Your task to perform on an android device: What is the news today? Image 0: 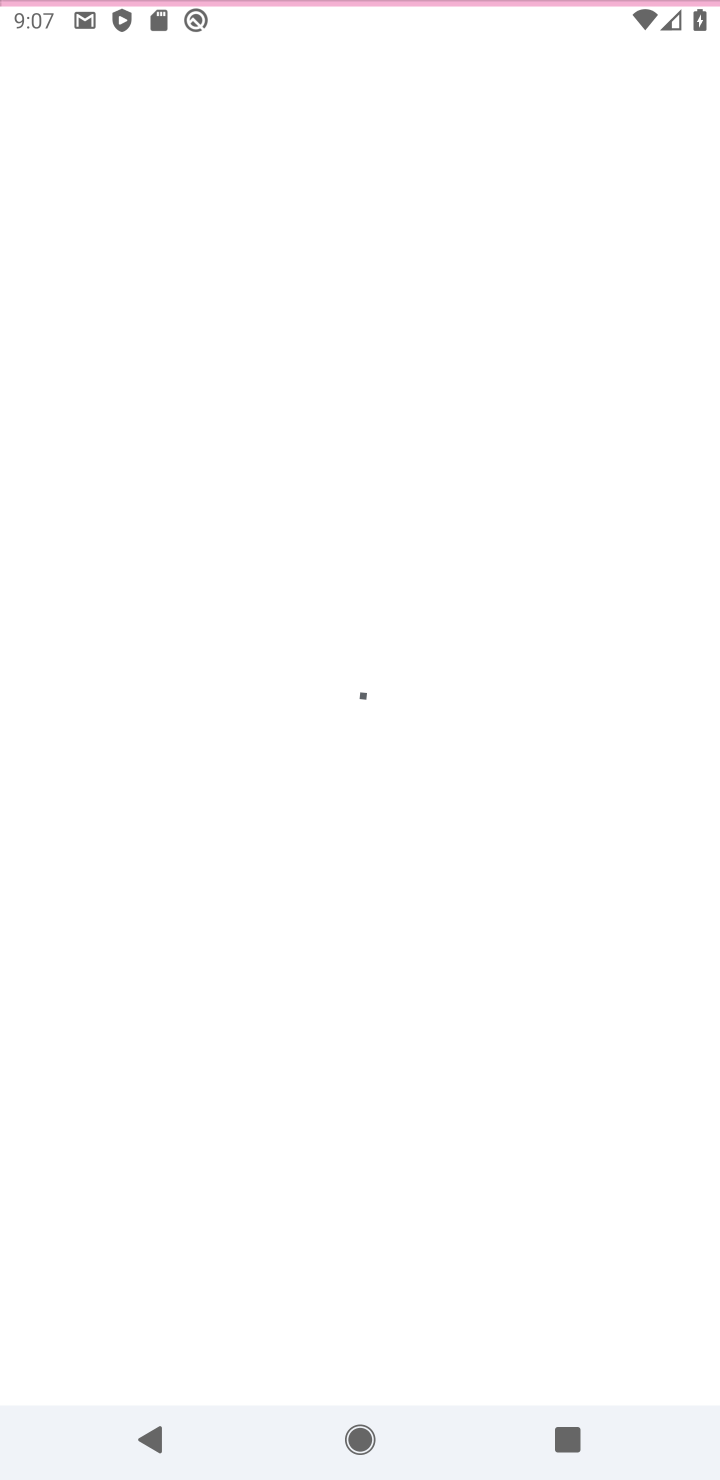
Step 0: press back button
Your task to perform on an android device: What is the news today? Image 1: 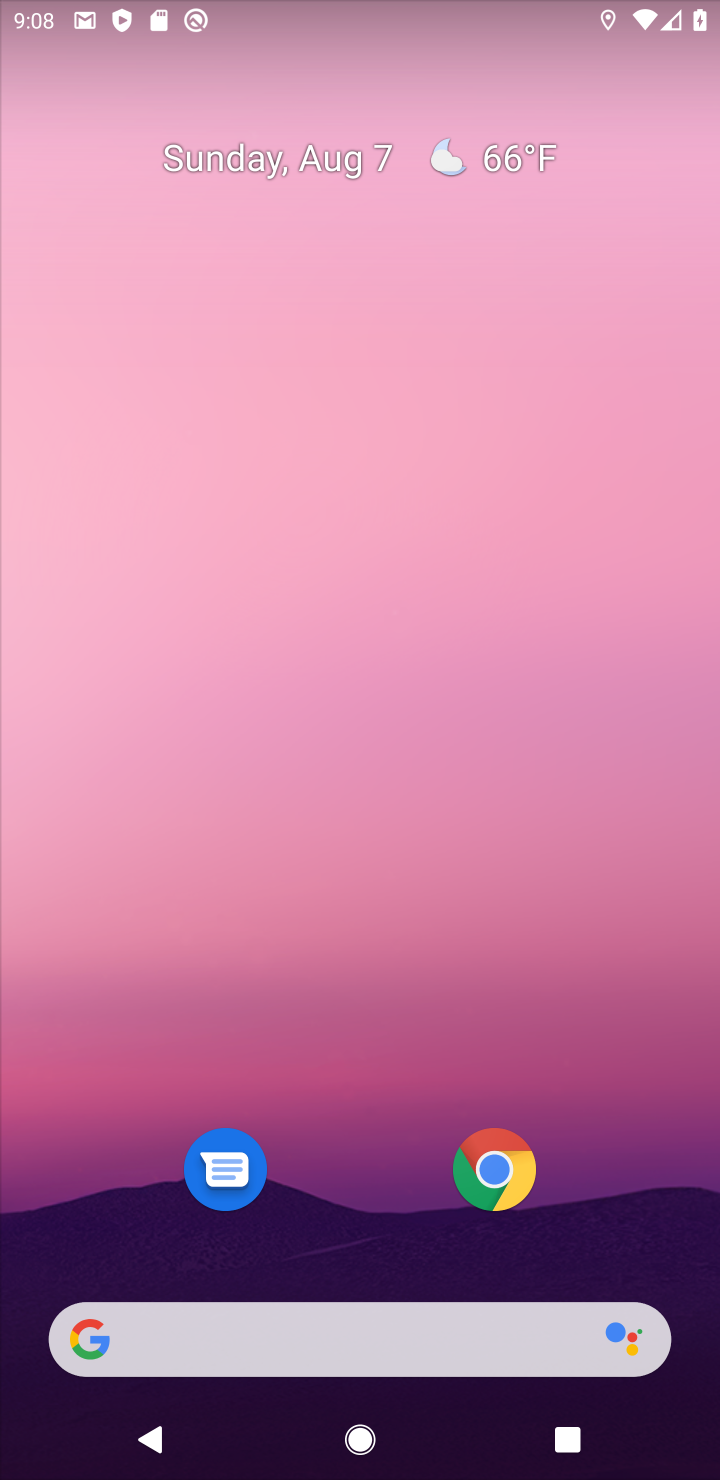
Step 1: drag from (316, 1296) to (299, 166)
Your task to perform on an android device: What is the news today? Image 2: 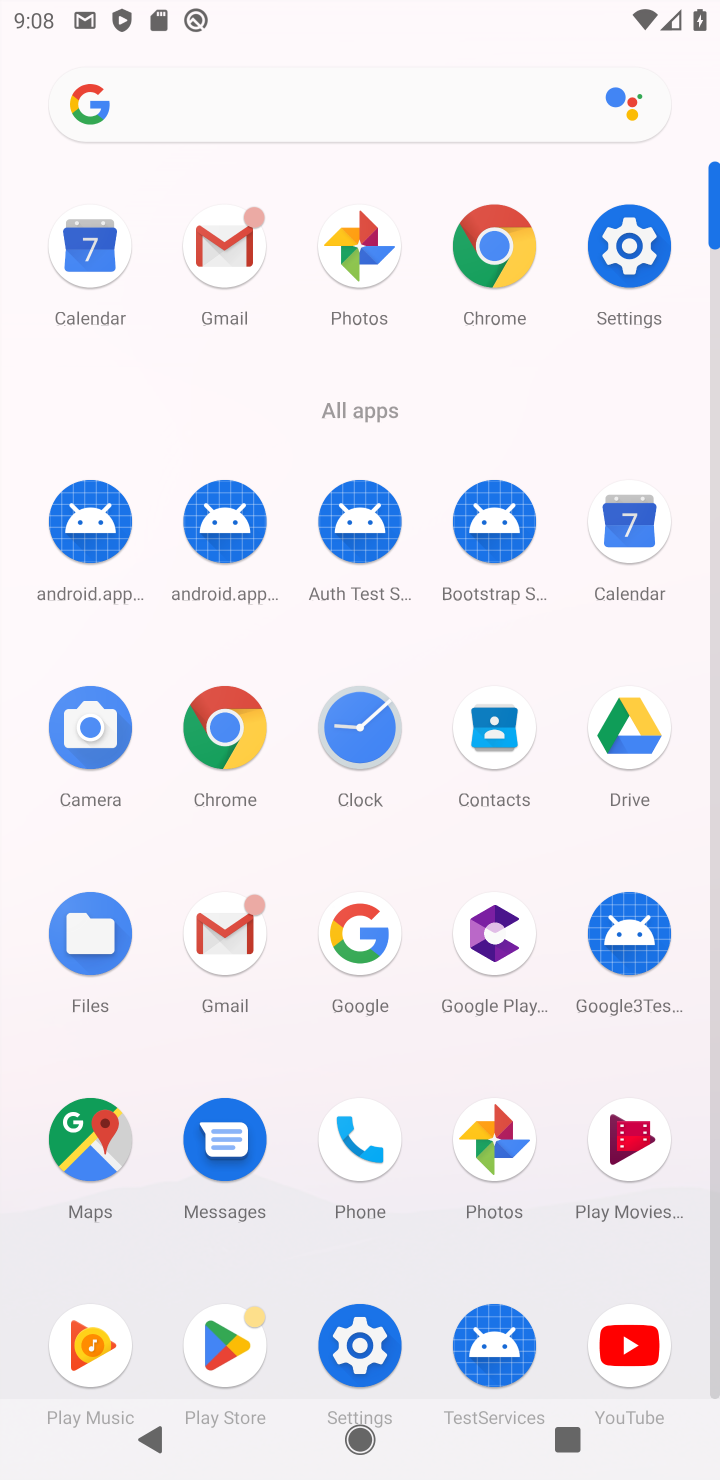
Step 2: click (377, 953)
Your task to perform on an android device: What is the news today? Image 3: 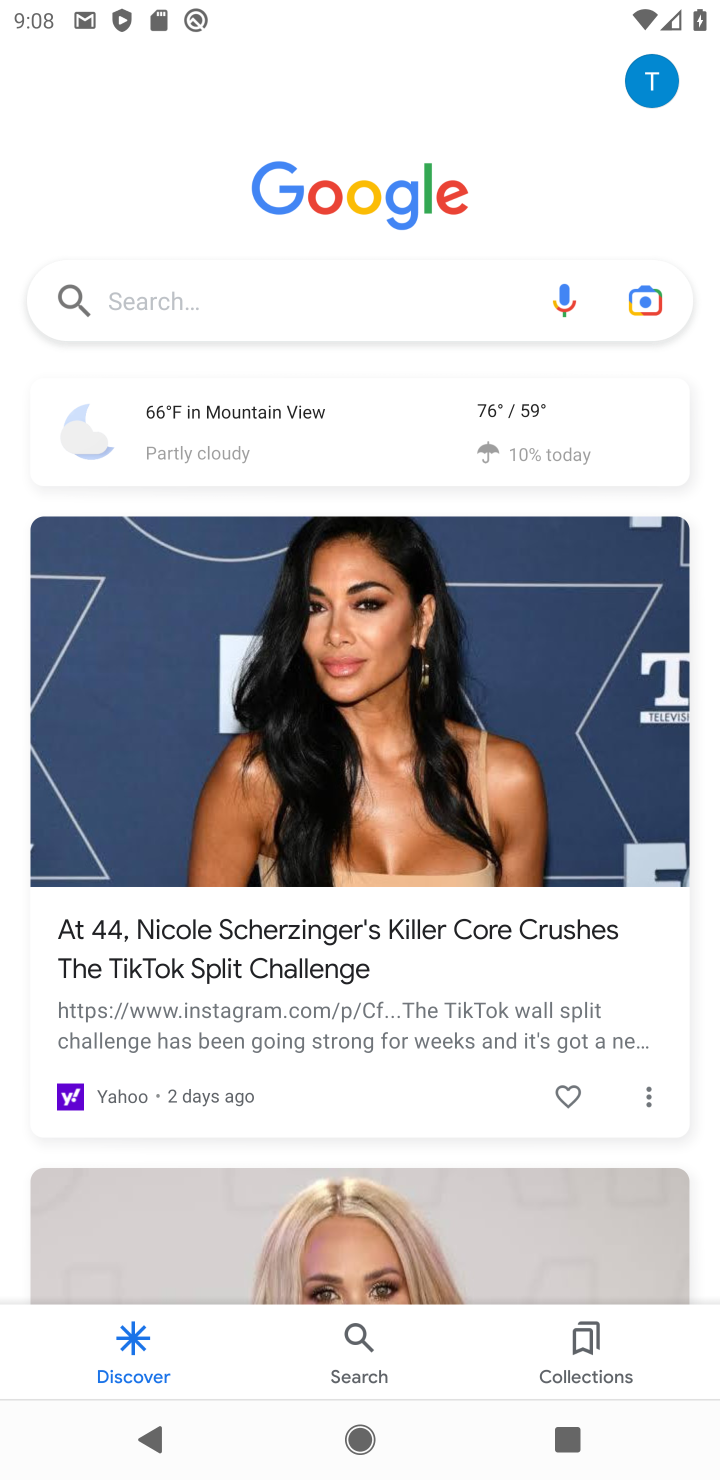
Step 3: click (273, 324)
Your task to perform on an android device: What is the news today? Image 4: 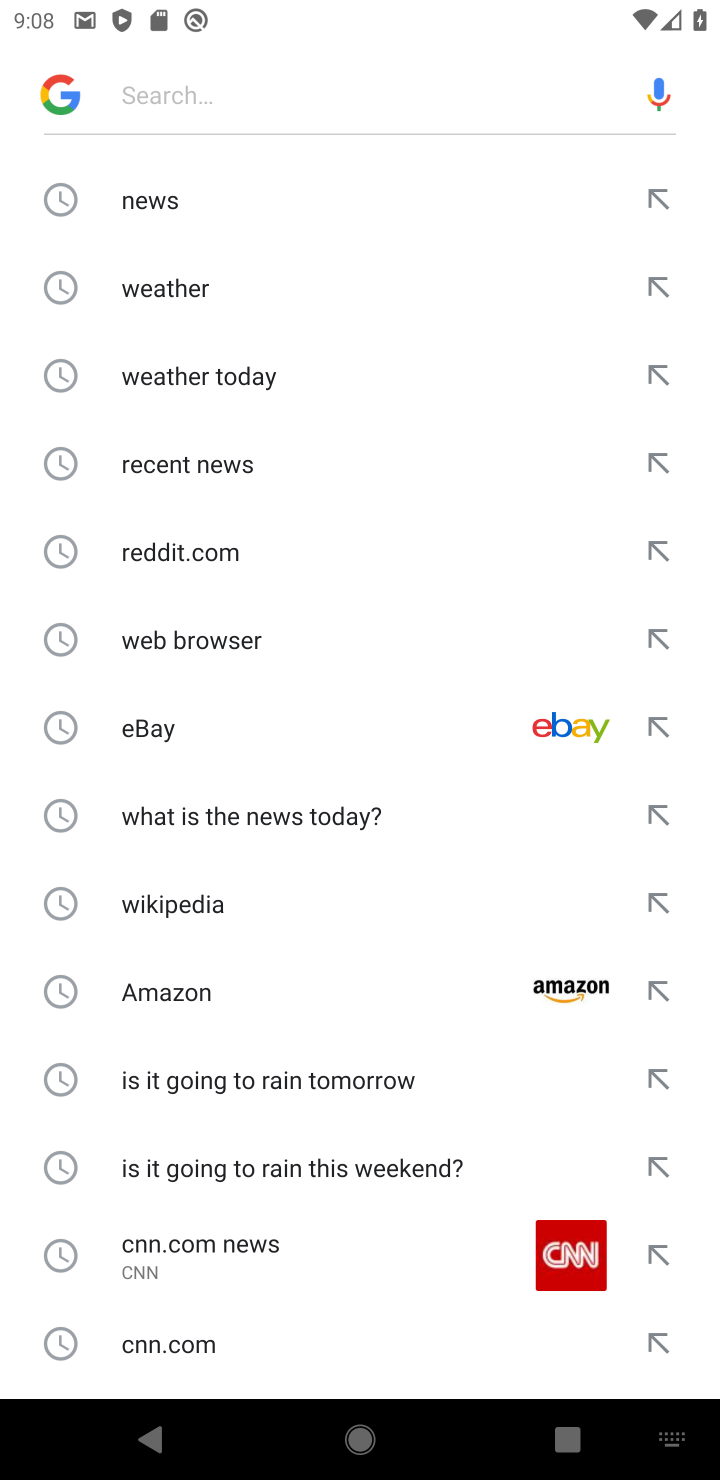
Step 4: click (164, 164)
Your task to perform on an android device: What is the news today? Image 5: 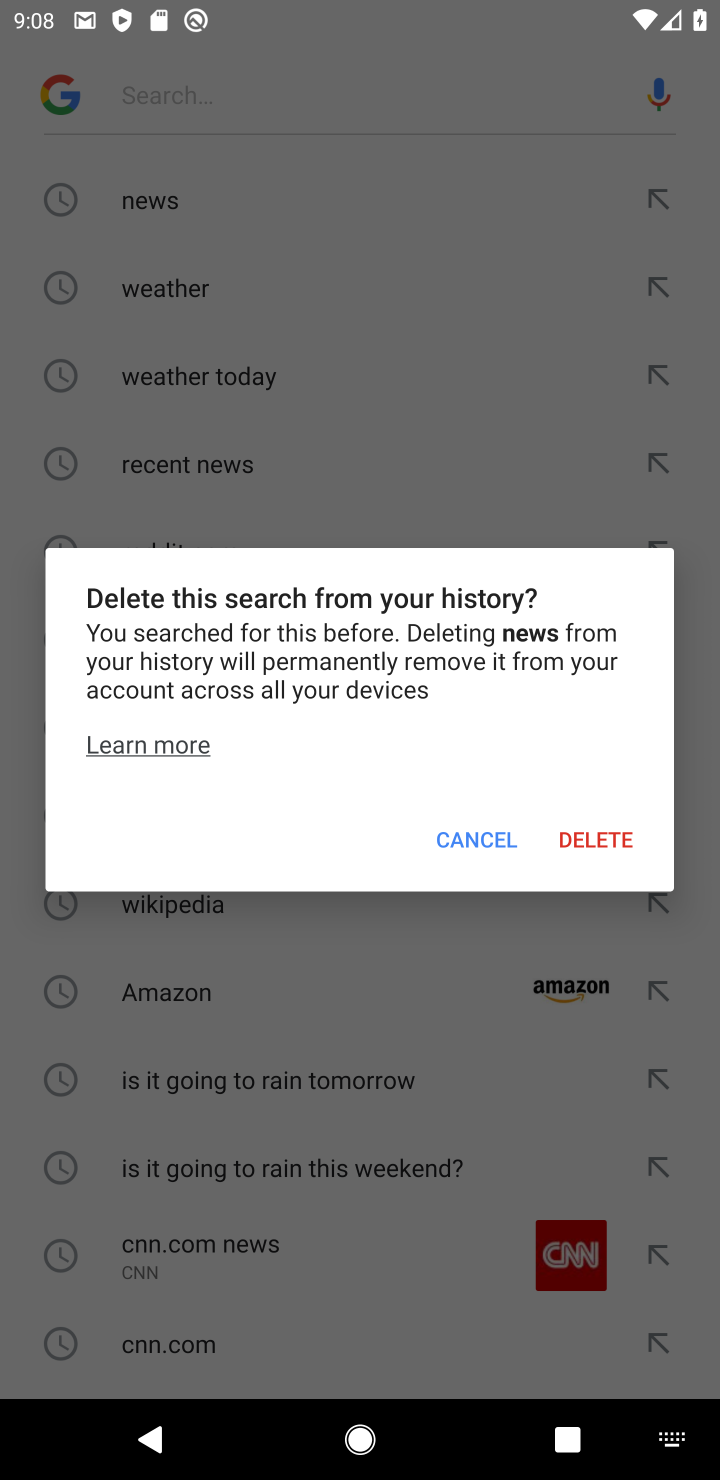
Step 5: click (477, 839)
Your task to perform on an android device: What is the news today? Image 6: 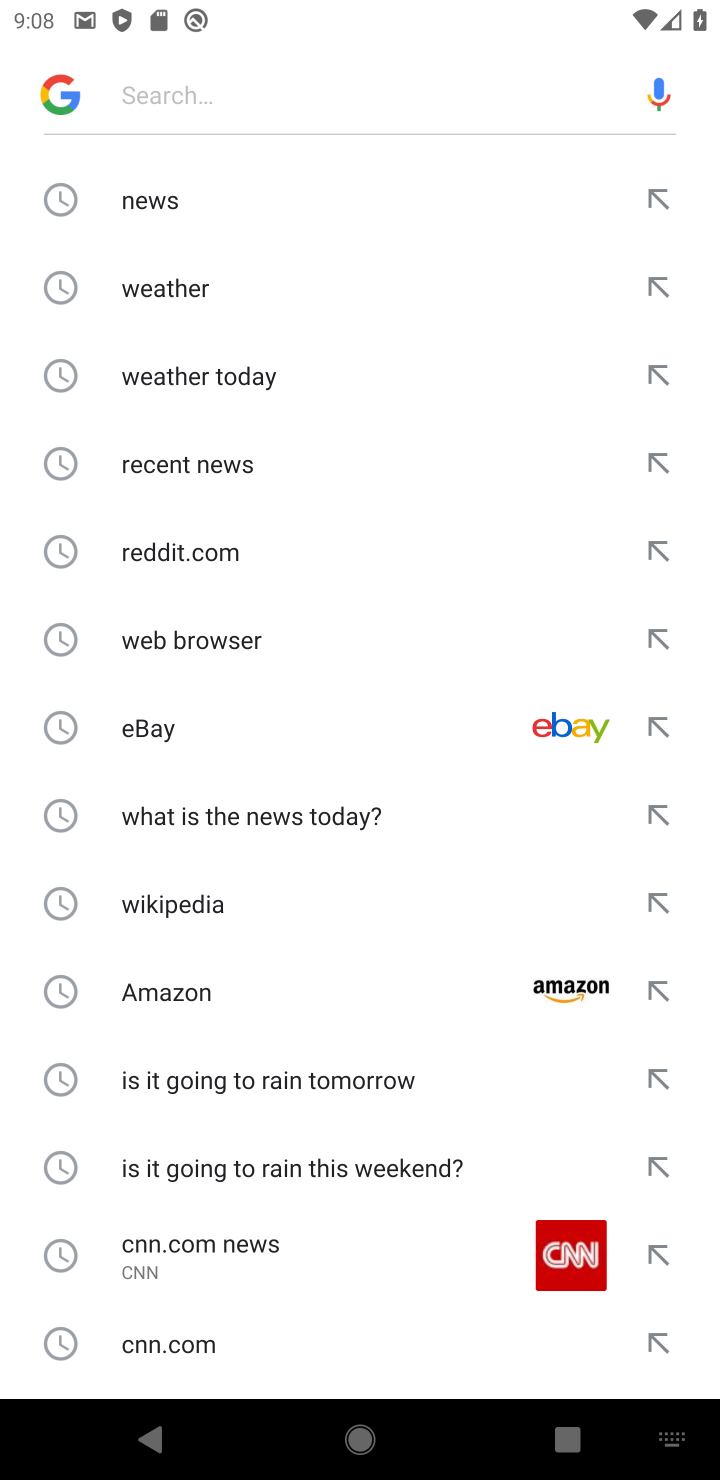
Step 6: click (184, 204)
Your task to perform on an android device: What is the news today? Image 7: 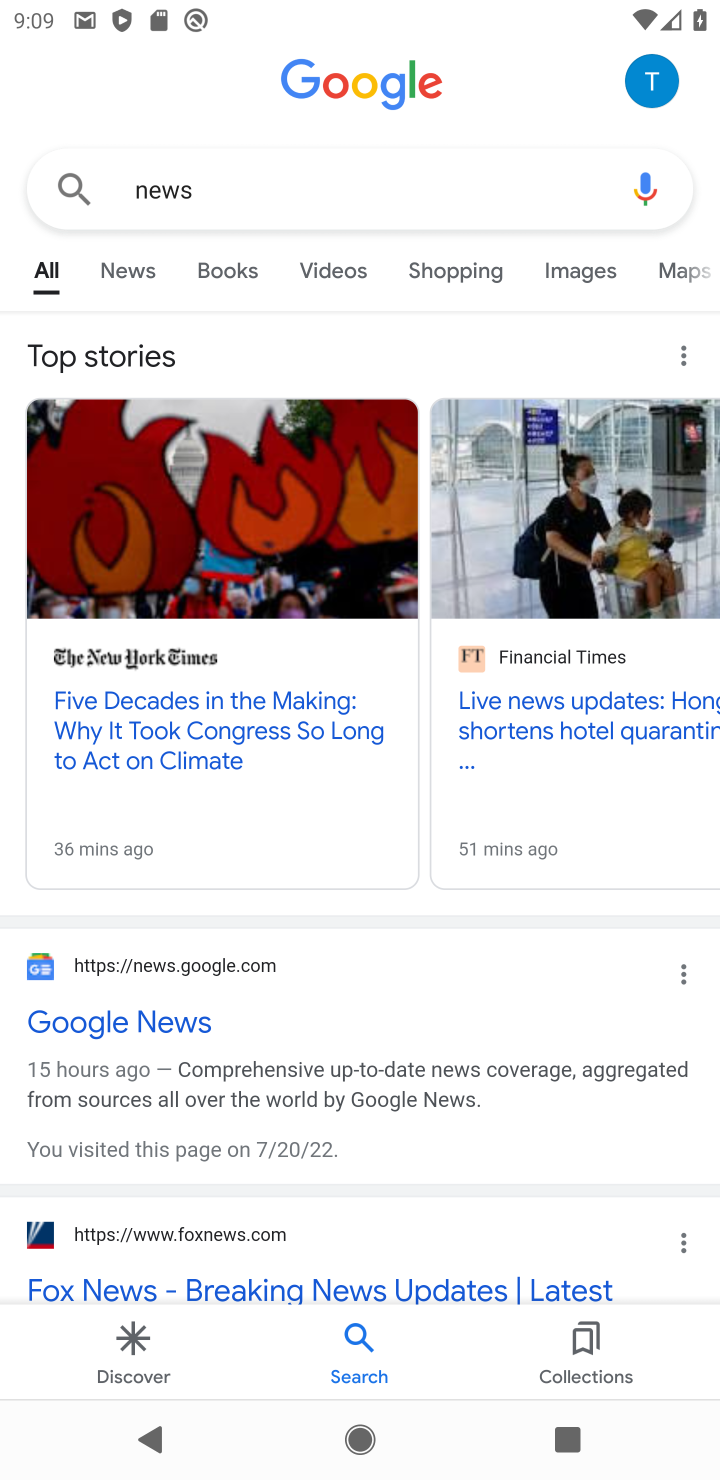
Step 7: task complete